Your task to perform on an android device: Is it going to rain tomorrow? Image 0: 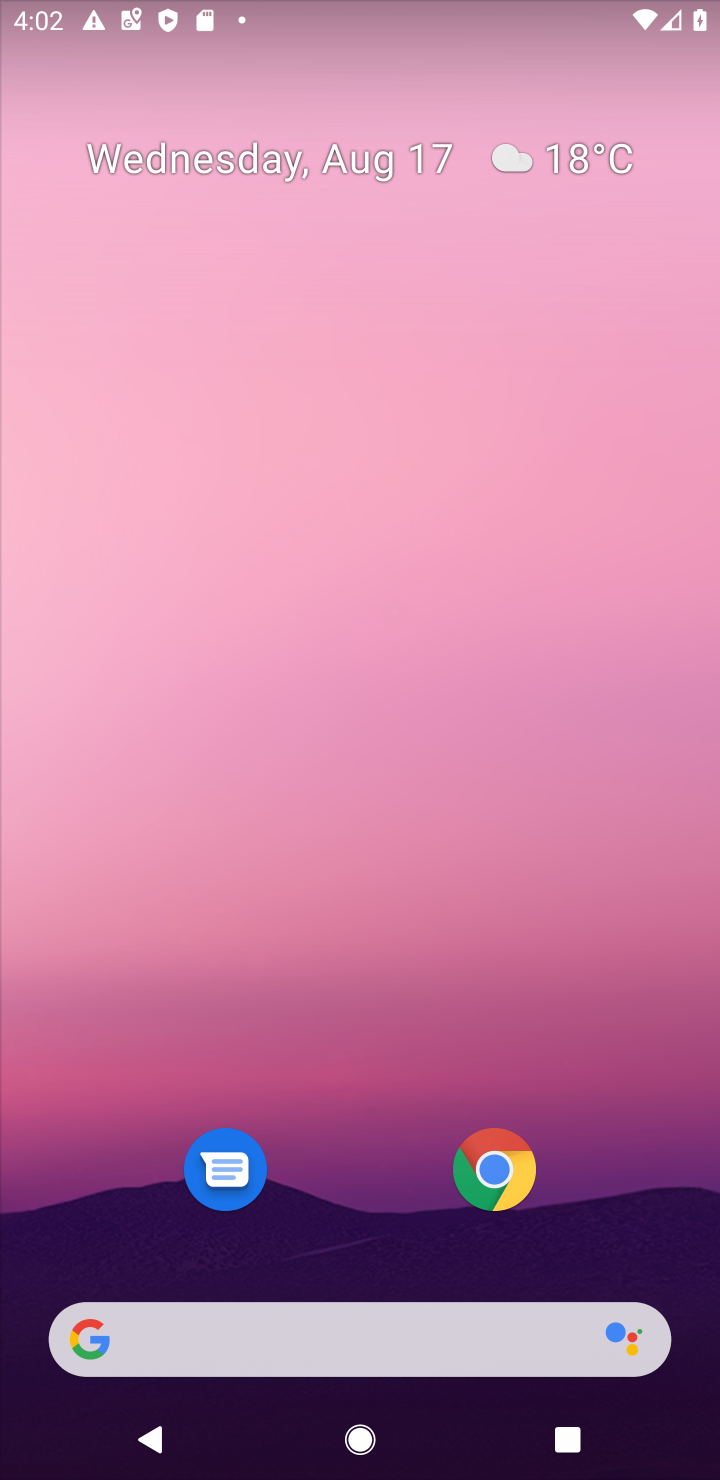
Step 0: drag from (376, 1041) to (505, 0)
Your task to perform on an android device: Is it going to rain tomorrow? Image 1: 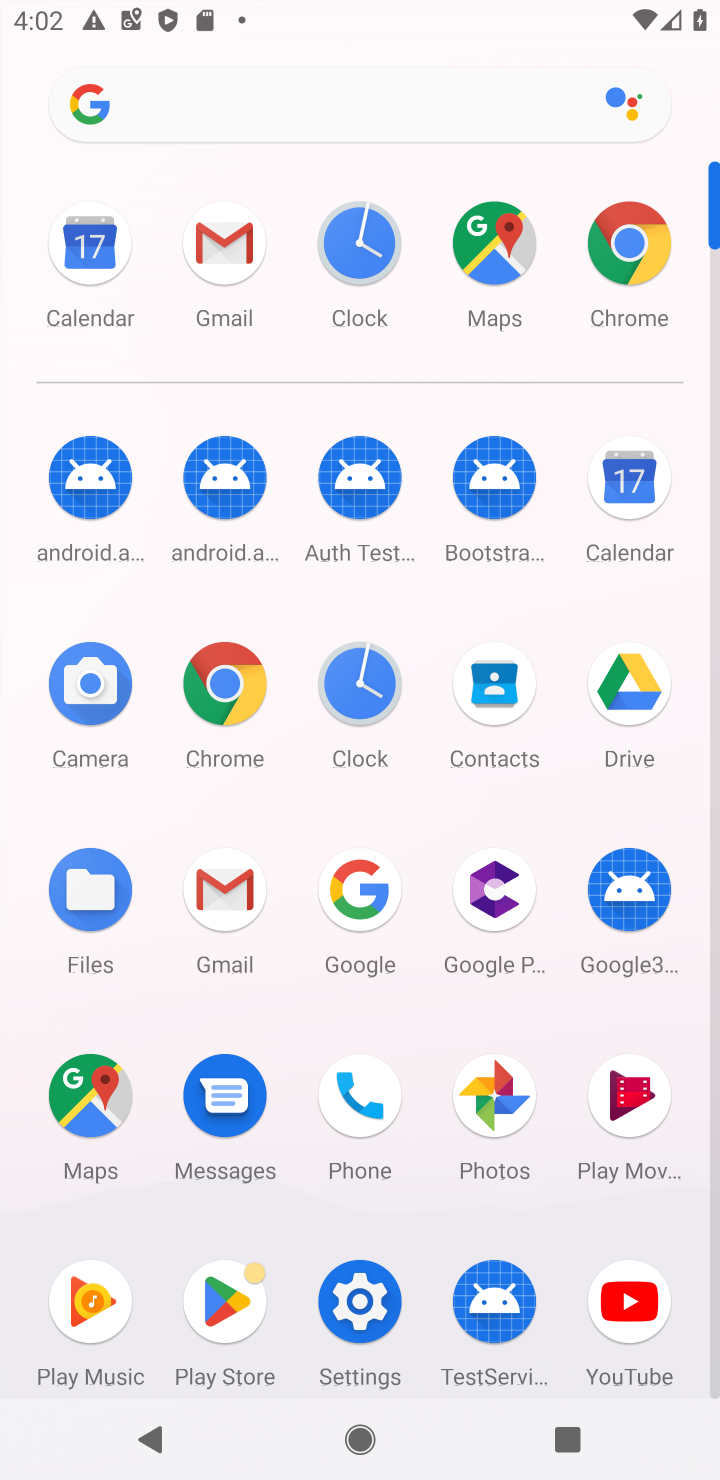
Step 1: click (631, 496)
Your task to perform on an android device: Is it going to rain tomorrow? Image 2: 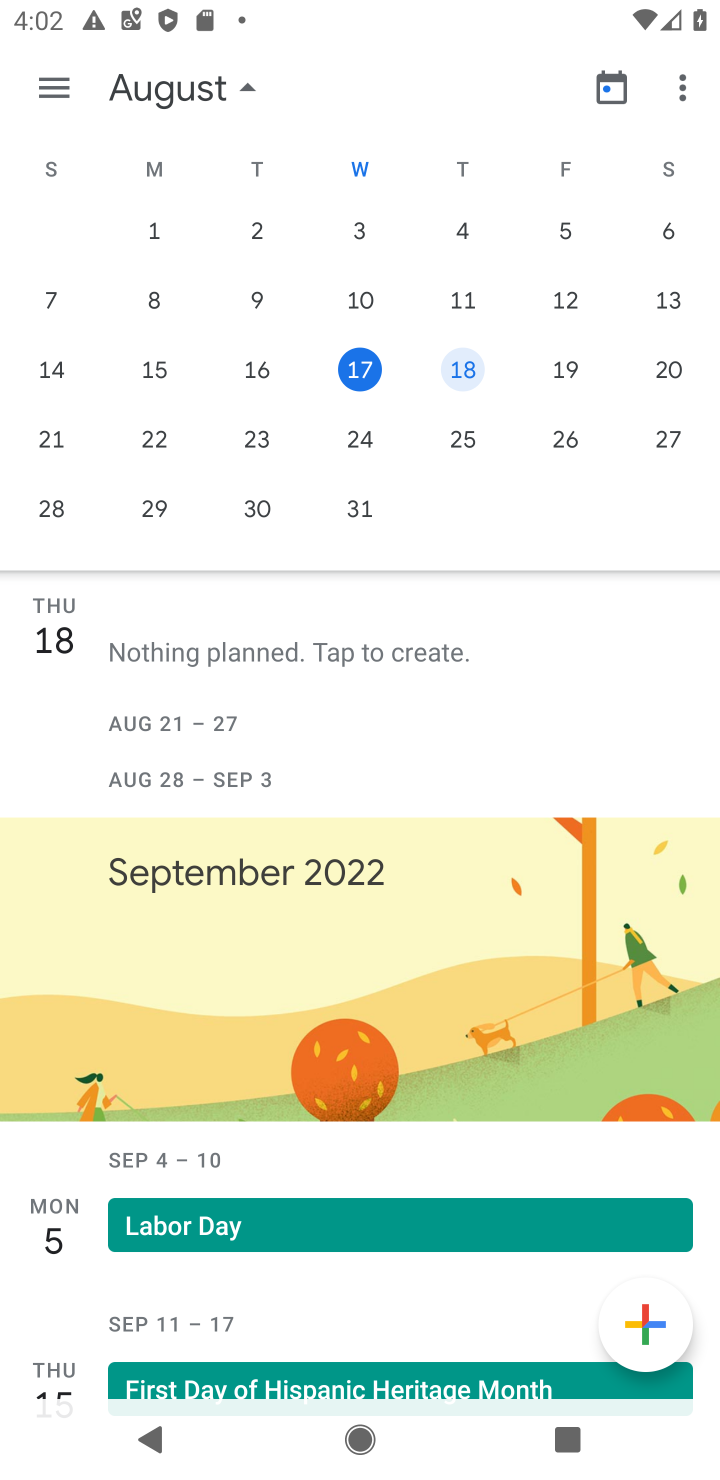
Step 2: press back button
Your task to perform on an android device: Is it going to rain tomorrow? Image 3: 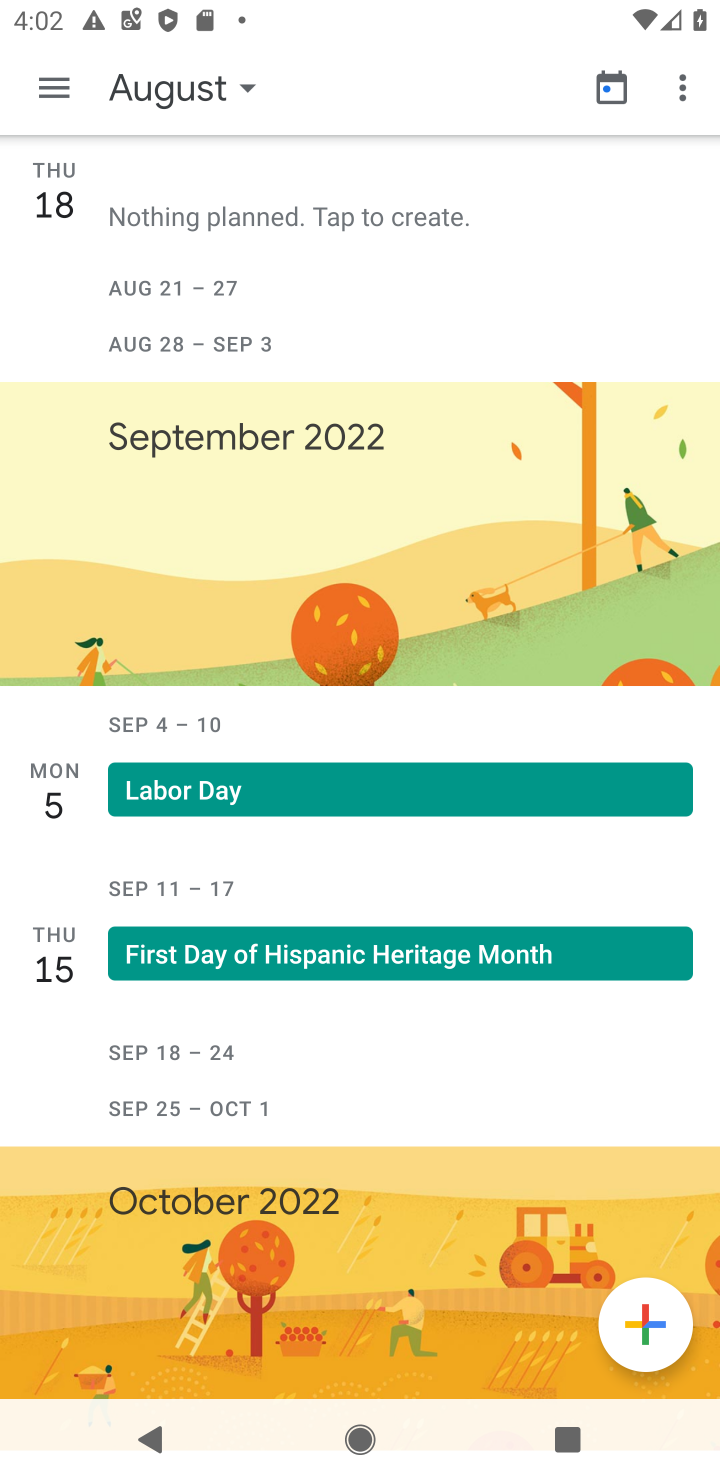
Step 3: press home button
Your task to perform on an android device: Is it going to rain tomorrow? Image 4: 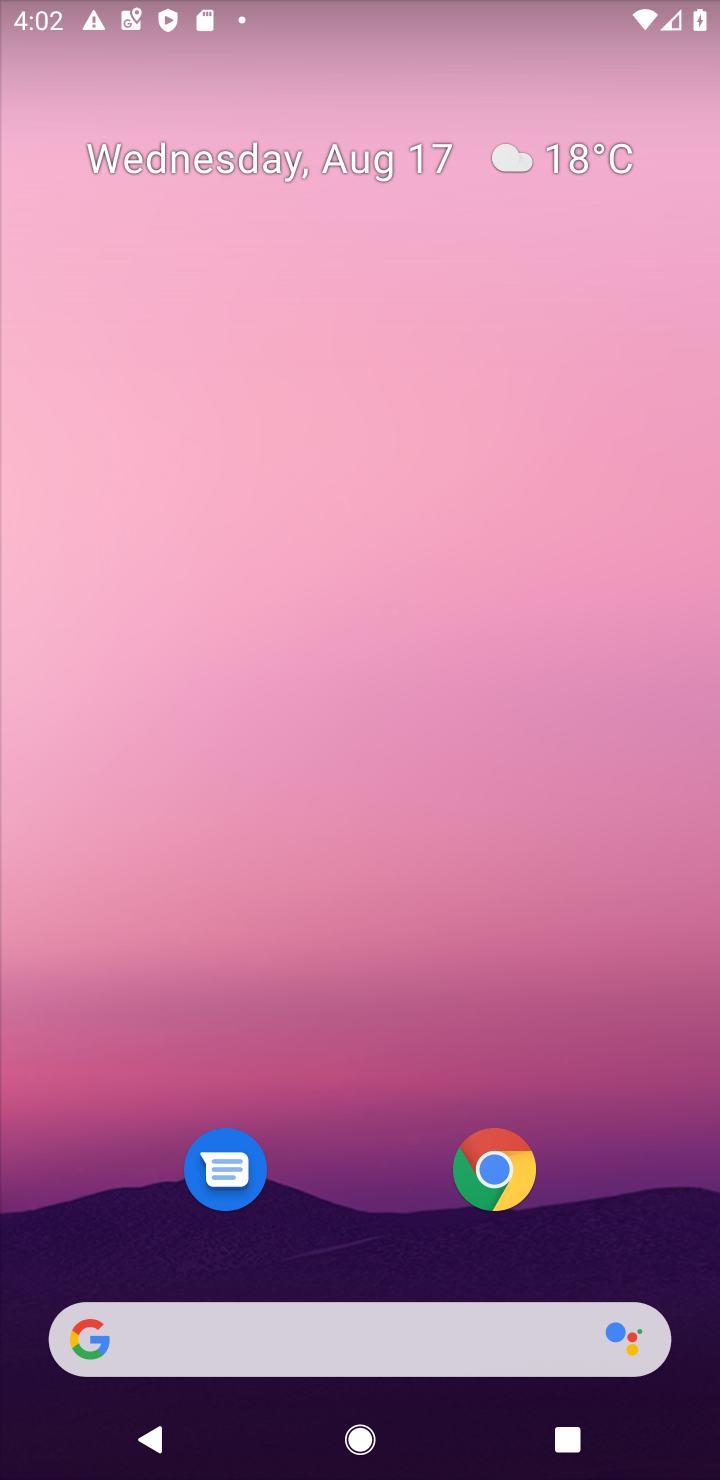
Step 4: click (509, 1162)
Your task to perform on an android device: Is it going to rain tomorrow? Image 5: 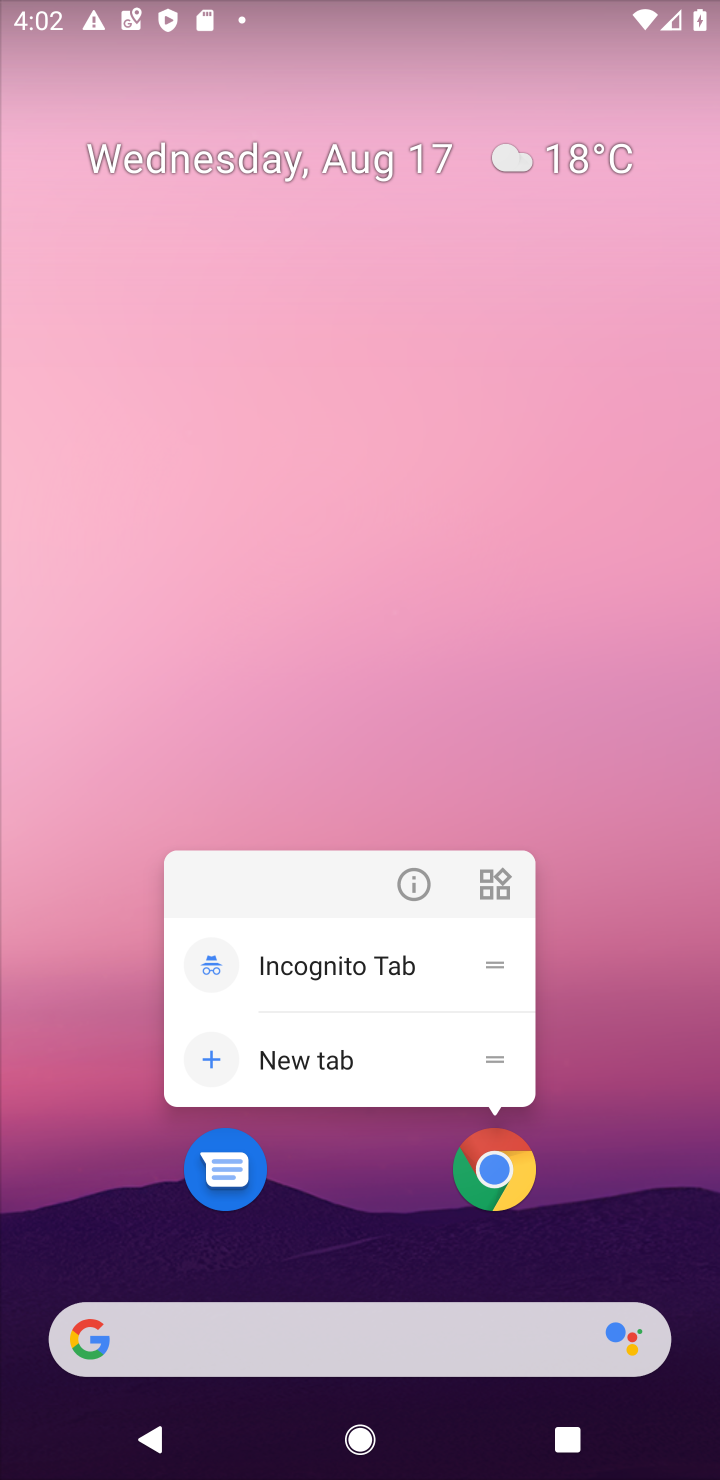
Step 5: click (497, 1168)
Your task to perform on an android device: Is it going to rain tomorrow? Image 6: 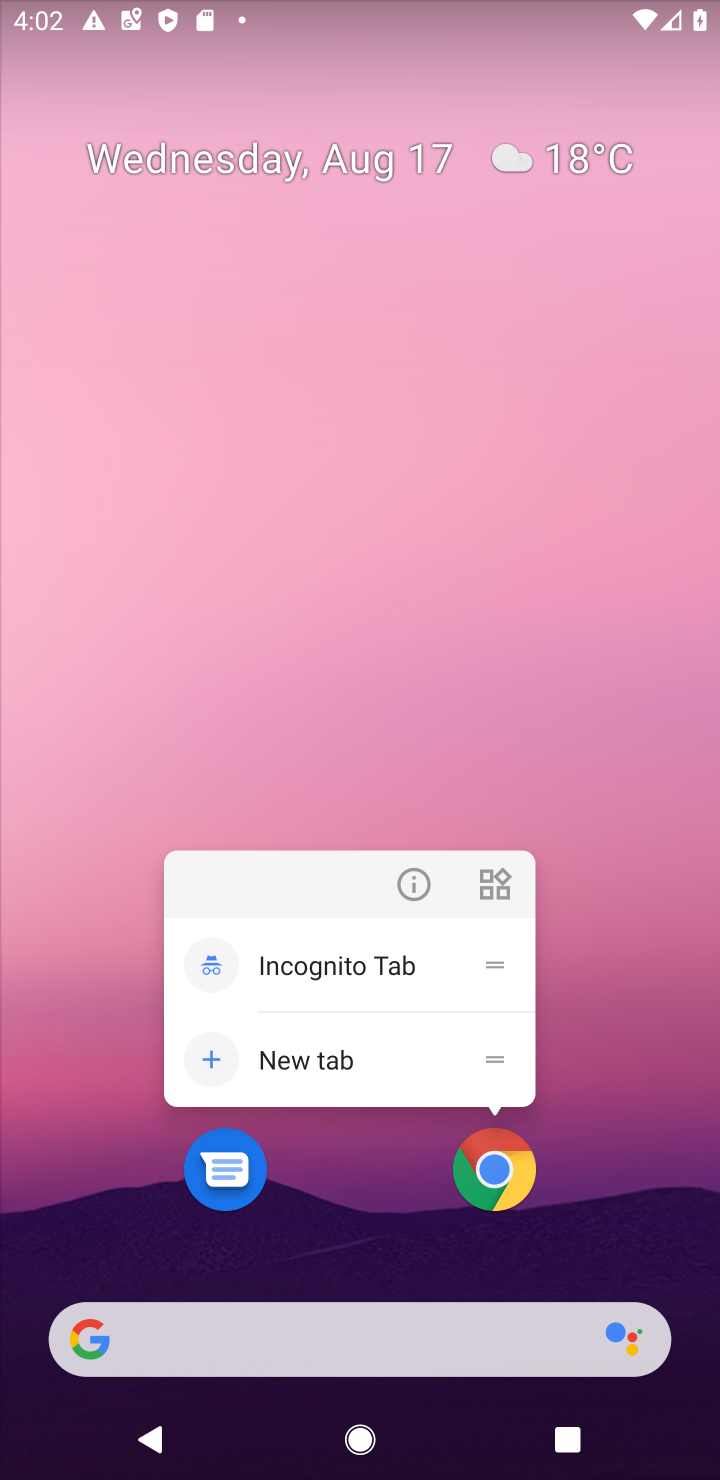
Step 6: click (519, 1186)
Your task to perform on an android device: Is it going to rain tomorrow? Image 7: 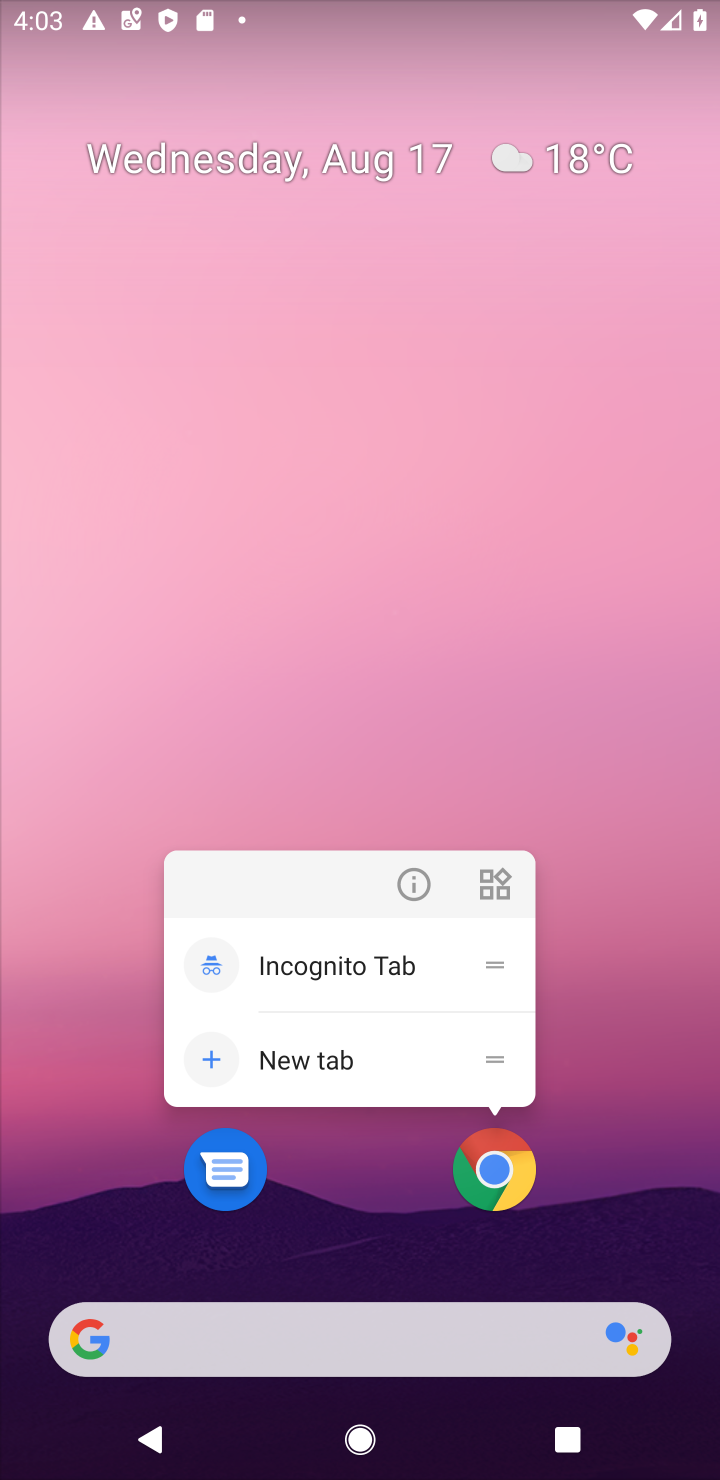
Step 7: click (625, 1186)
Your task to perform on an android device: Is it going to rain tomorrow? Image 8: 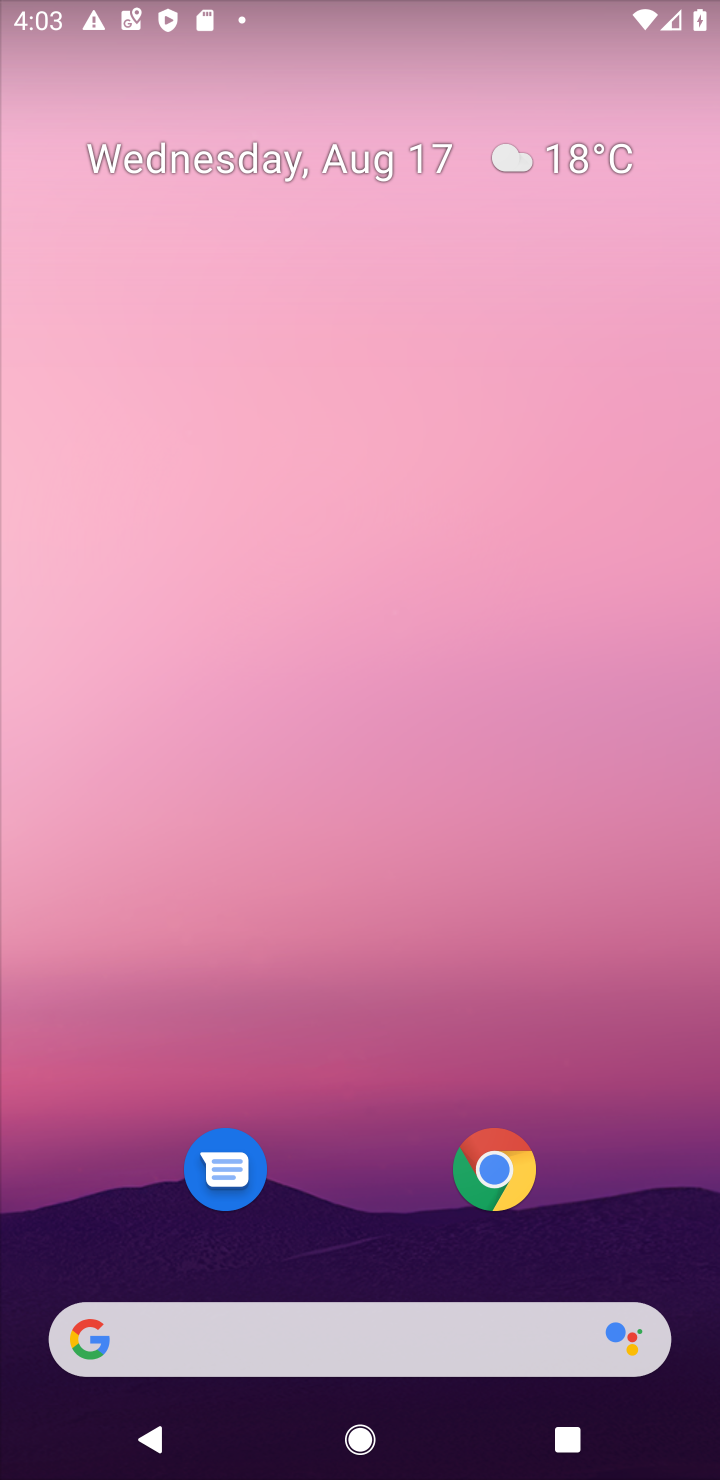
Step 8: drag from (629, 1244) to (717, 82)
Your task to perform on an android device: Is it going to rain tomorrow? Image 9: 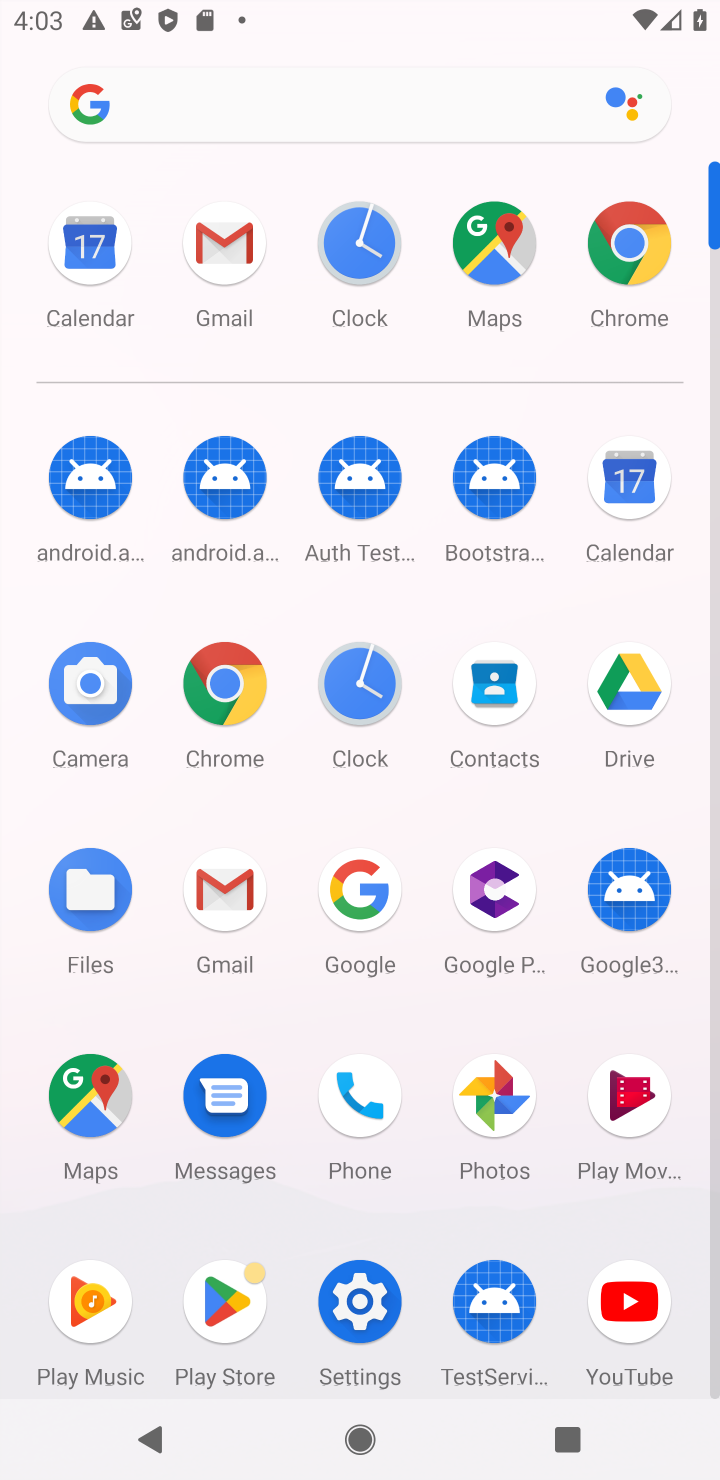
Step 9: click (214, 676)
Your task to perform on an android device: Is it going to rain tomorrow? Image 10: 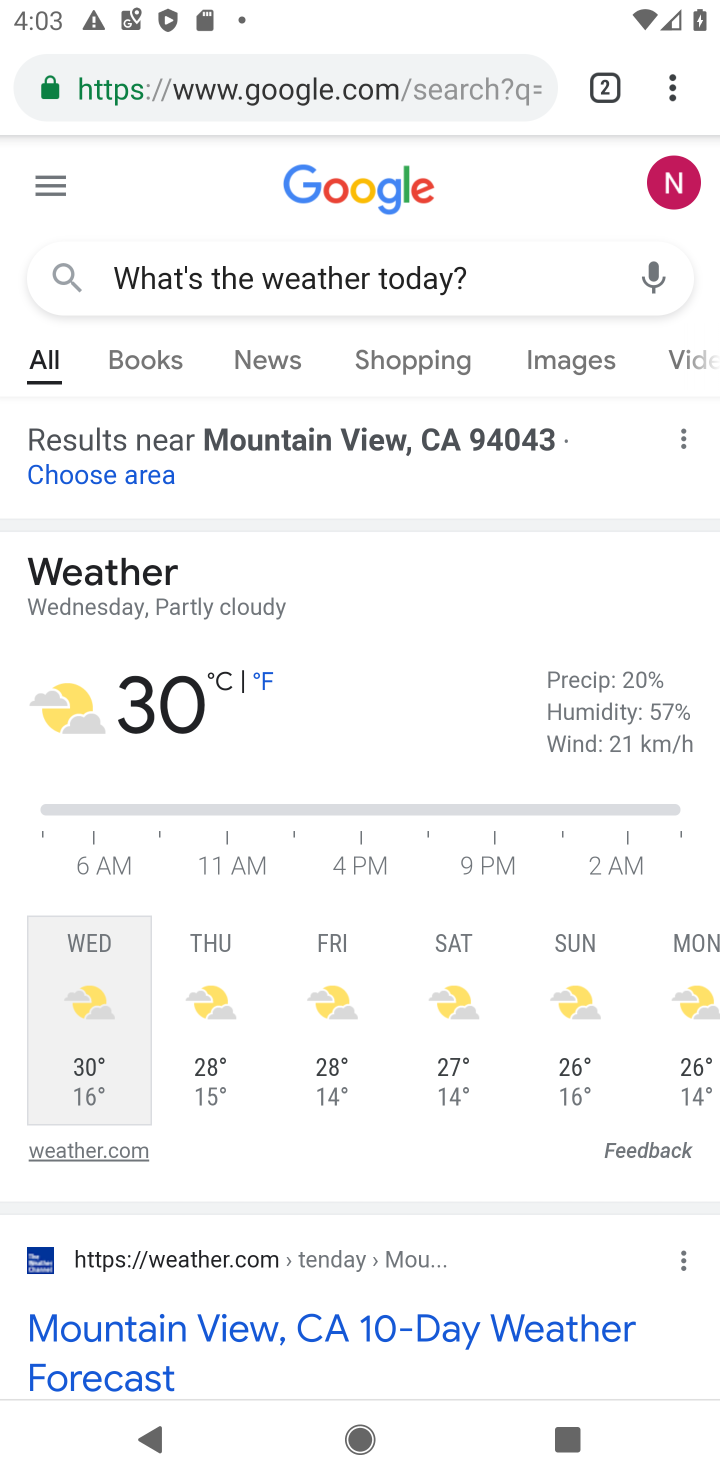
Step 10: click (235, 75)
Your task to perform on an android device: Is it going to rain tomorrow? Image 11: 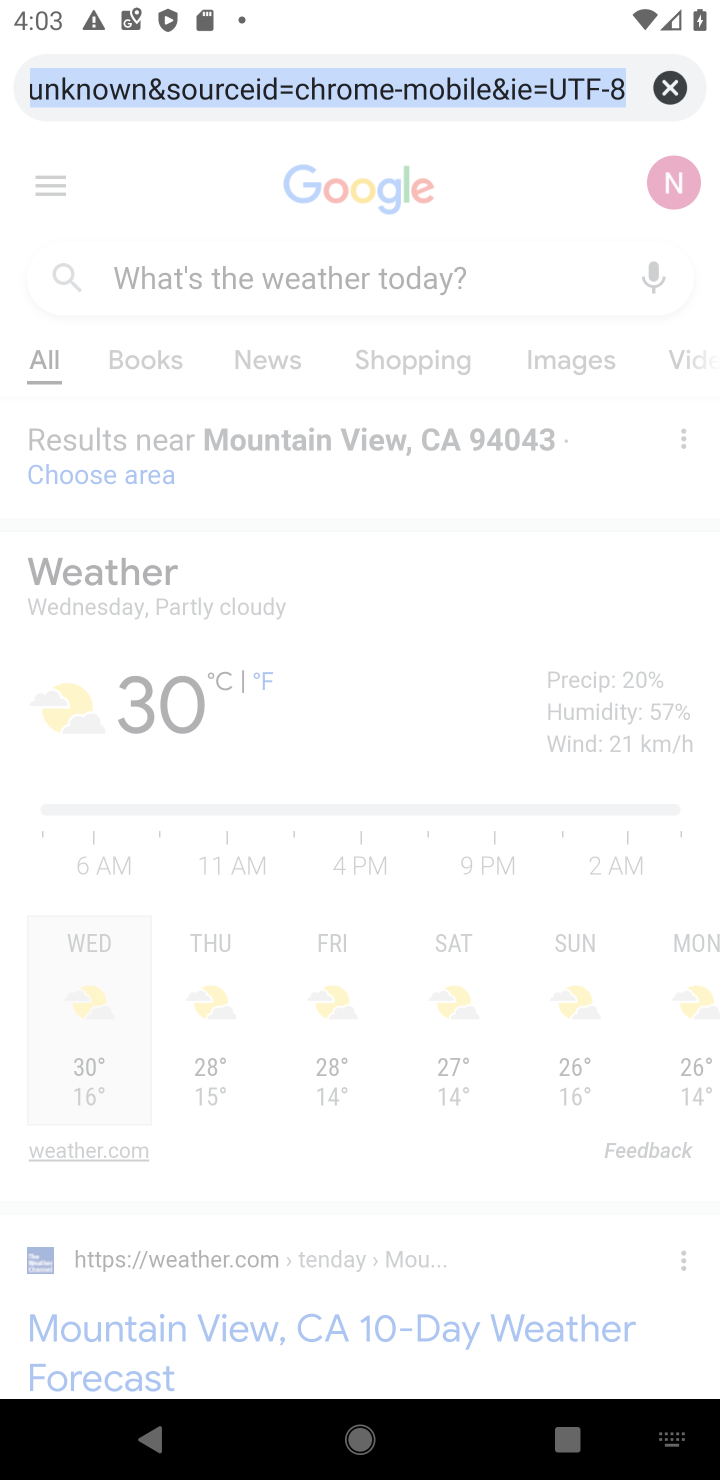
Step 11: type "Is it going to rain tomorrow?"
Your task to perform on an android device: Is it going to rain tomorrow? Image 12: 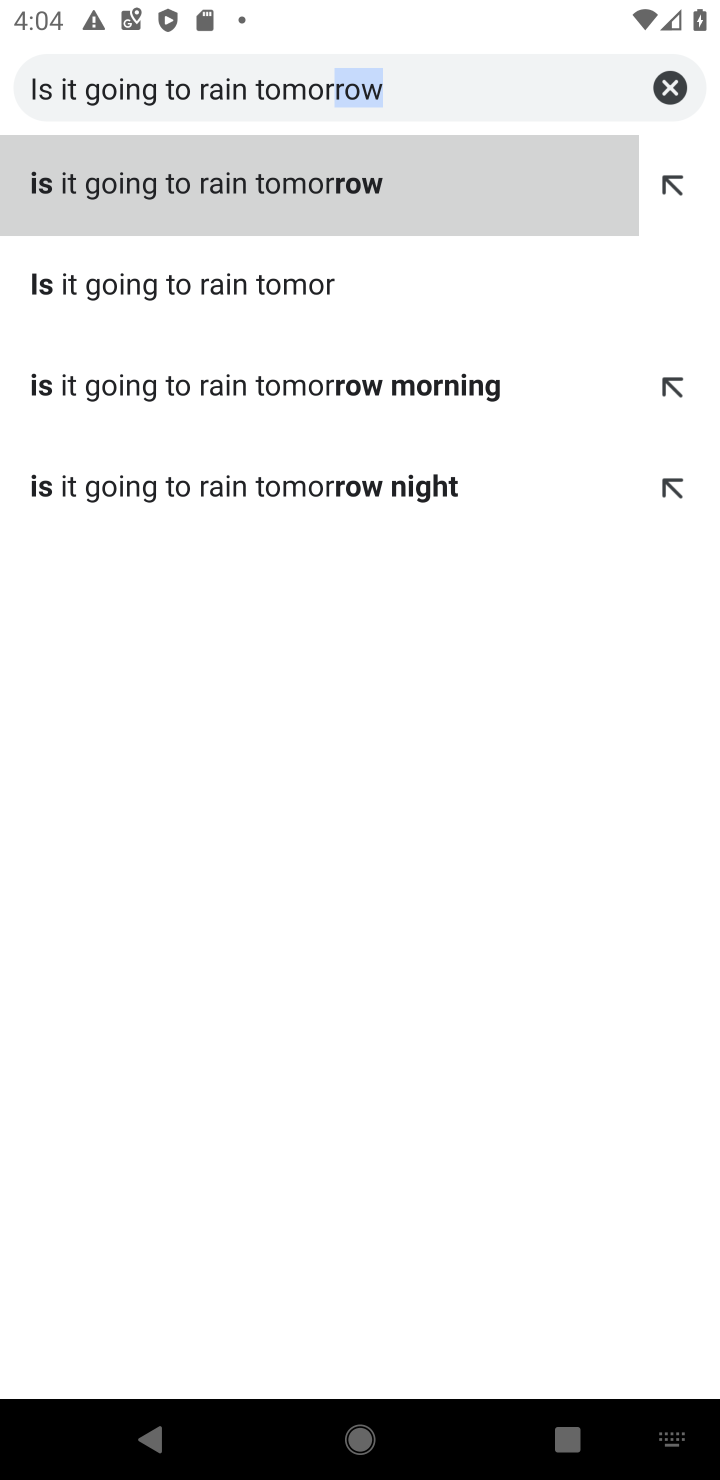
Step 12: click (245, 186)
Your task to perform on an android device: Is it going to rain tomorrow? Image 13: 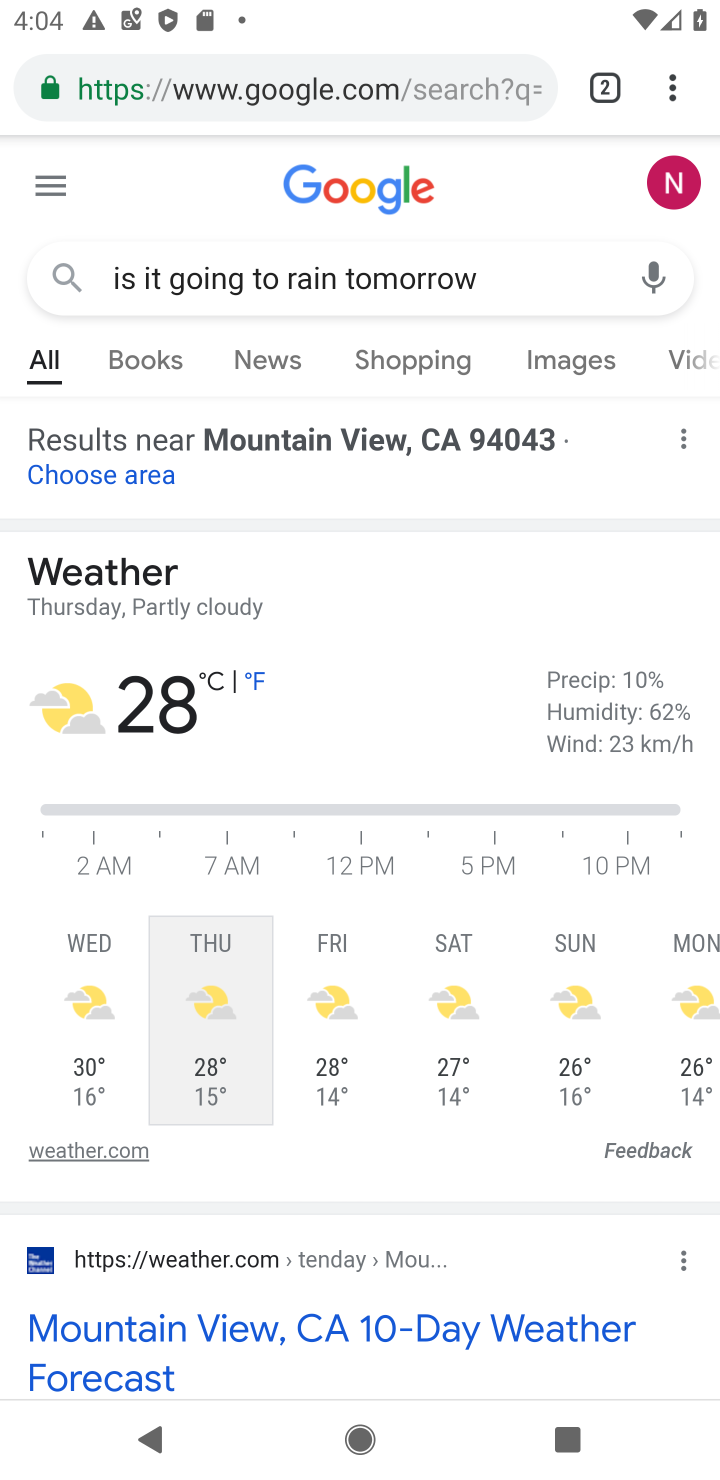
Step 13: task complete